Your task to perform on an android device: turn notification dots on Image 0: 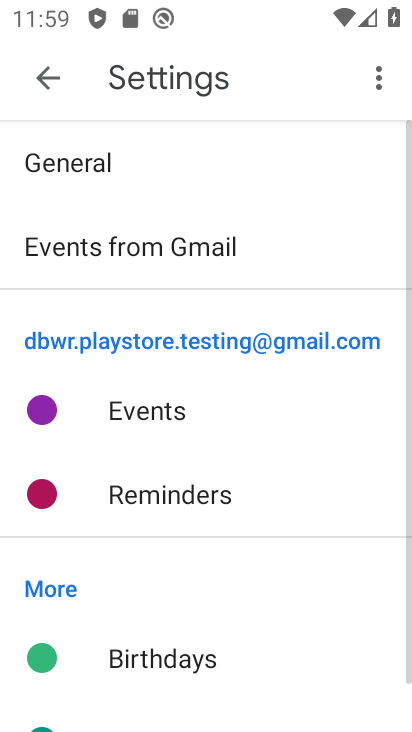
Step 0: press home button
Your task to perform on an android device: turn notification dots on Image 1: 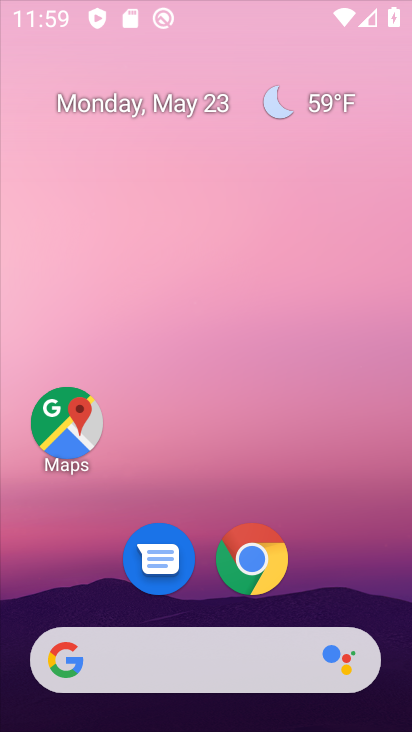
Step 1: drag from (394, 640) to (309, 48)
Your task to perform on an android device: turn notification dots on Image 2: 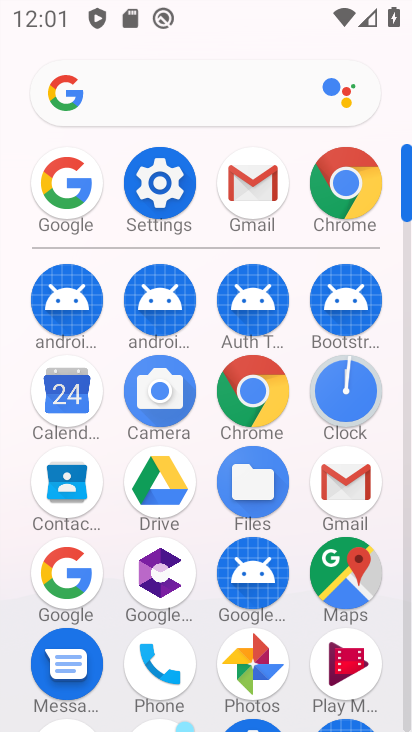
Step 2: click (123, 187)
Your task to perform on an android device: turn notification dots on Image 3: 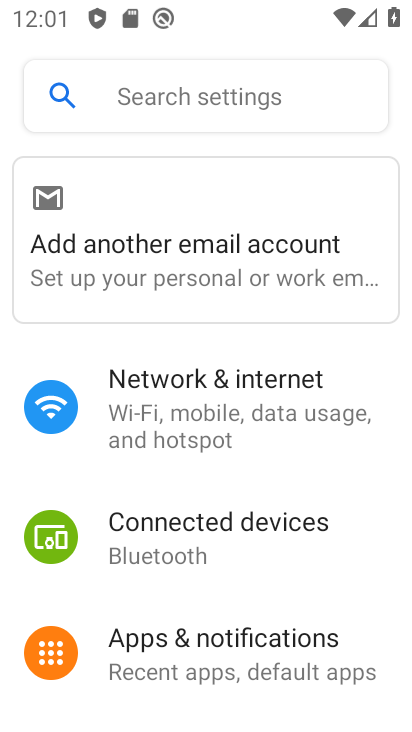
Step 3: click (302, 678)
Your task to perform on an android device: turn notification dots on Image 4: 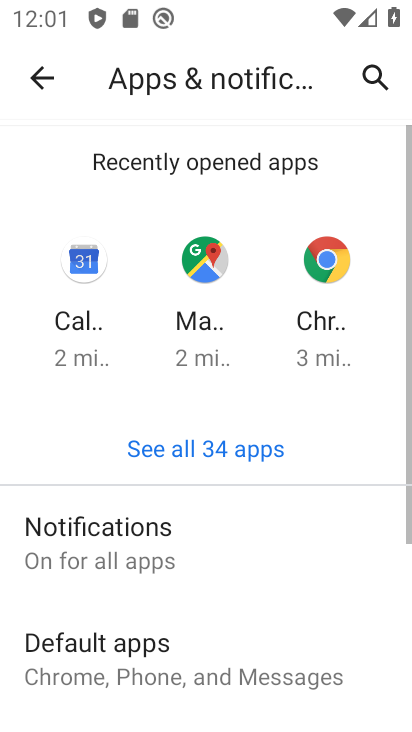
Step 4: click (140, 562)
Your task to perform on an android device: turn notification dots on Image 5: 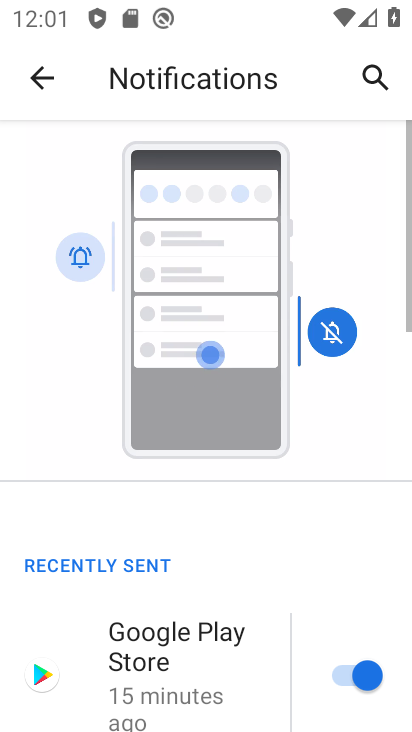
Step 5: drag from (130, 660) to (188, 47)
Your task to perform on an android device: turn notification dots on Image 6: 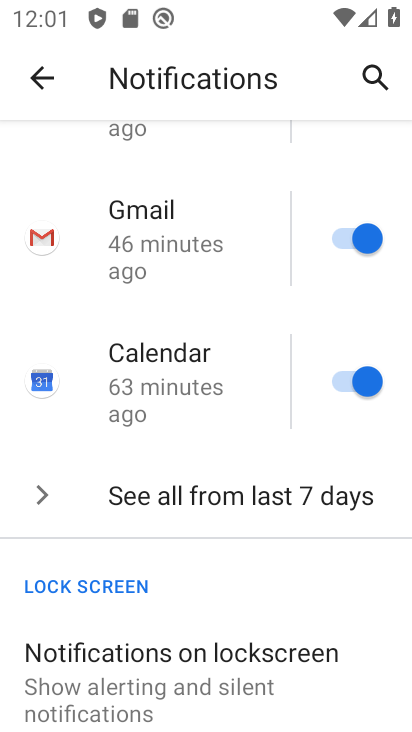
Step 6: drag from (189, 676) to (204, 147)
Your task to perform on an android device: turn notification dots on Image 7: 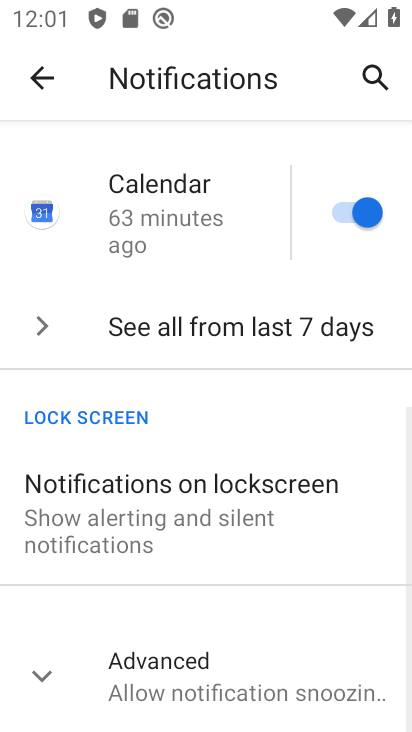
Step 7: click (173, 667)
Your task to perform on an android device: turn notification dots on Image 8: 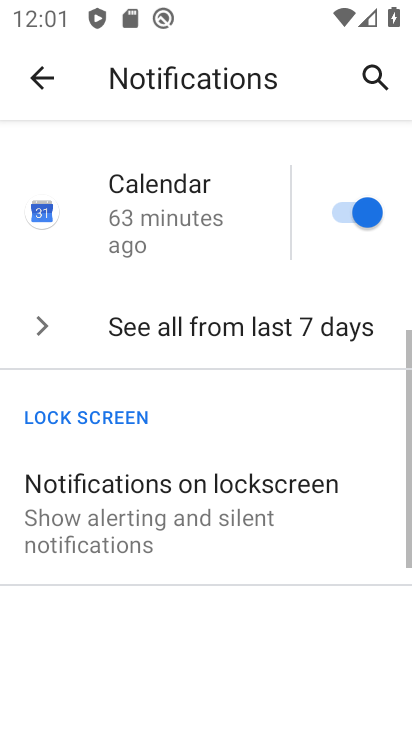
Step 8: task complete